Your task to perform on an android device: add a contact Image 0: 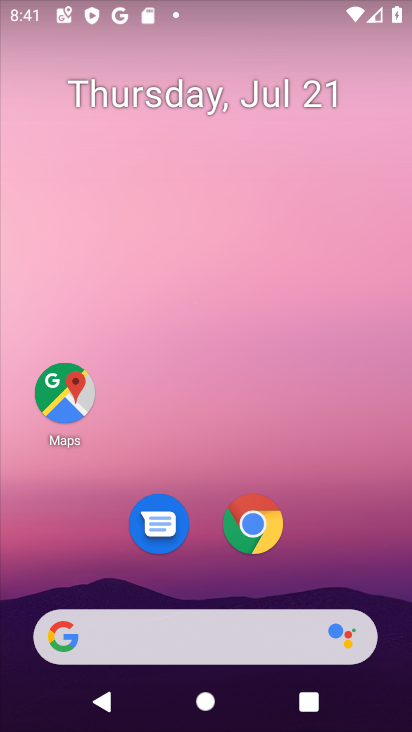
Step 0: drag from (207, 652) to (325, 194)
Your task to perform on an android device: add a contact Image 1: 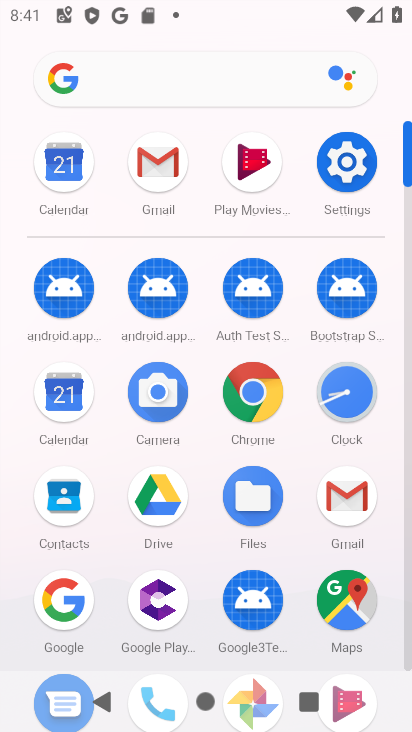
Step 1: click (72, 500)
Your task to perform on an android device: add a contact Image 2: 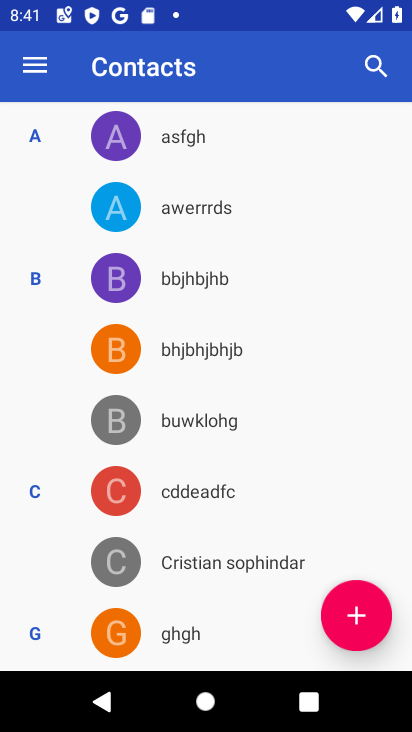
Step 2: click (346, 623)
Your task to perform on an android device: add a contact Image 3: 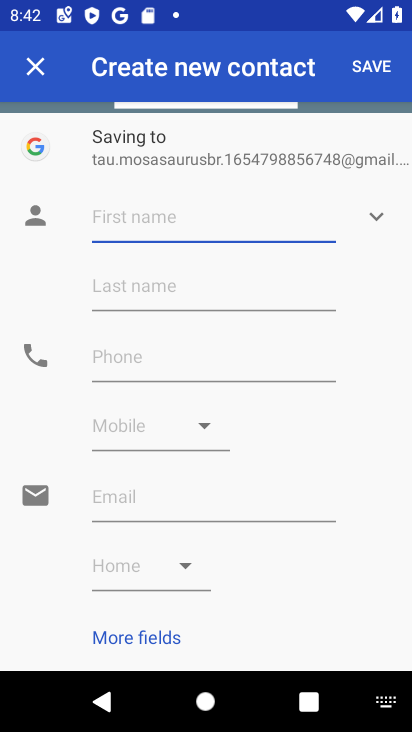
Step 3: type "byuujhh"
Your task to perform on an android device: add a contact Image 4: 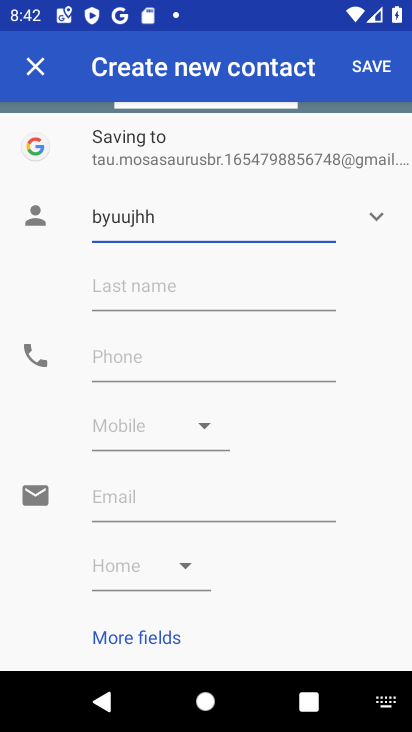
Step 4: click (101, 354)
Your task to perform on an android device: add a contact Image 5: 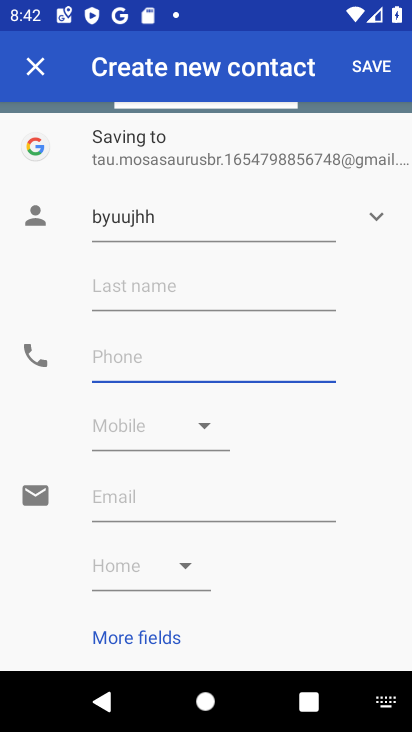
Step 5: type "786655"
Your task to perform on an android device: add a contact Image 6: 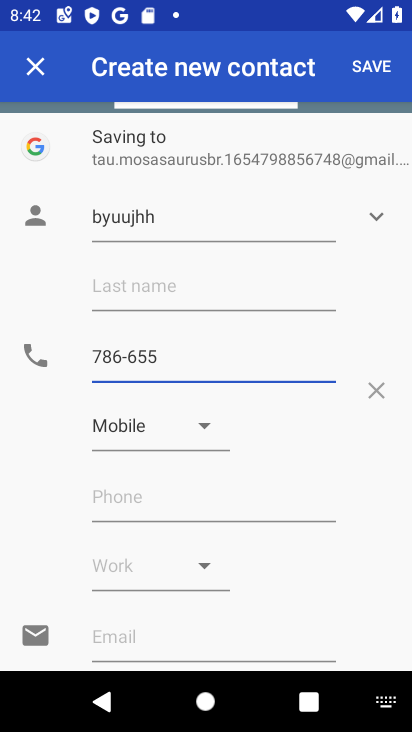
Step 6: click (367, 66)
Your task to perform on an android device: add a contact Image 7: 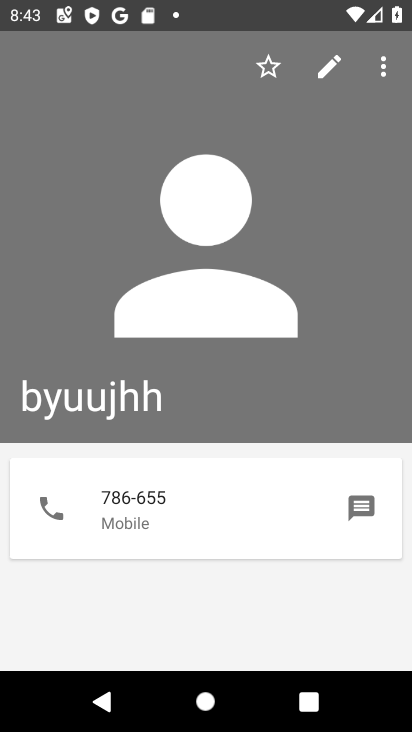
Step 7: task complete